Your task to perform on an android device: empty trash in the gmail app Image 0: 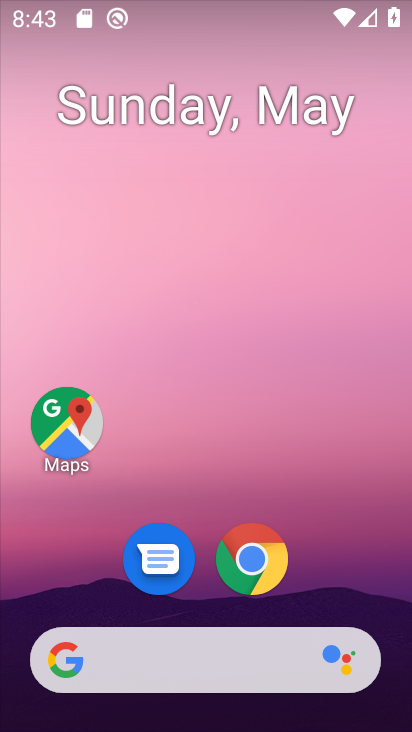
Step 0: drag from (357, 564) to (406, 325)
Your task to perform on an android device: empty trash in the gmail app Image 1: 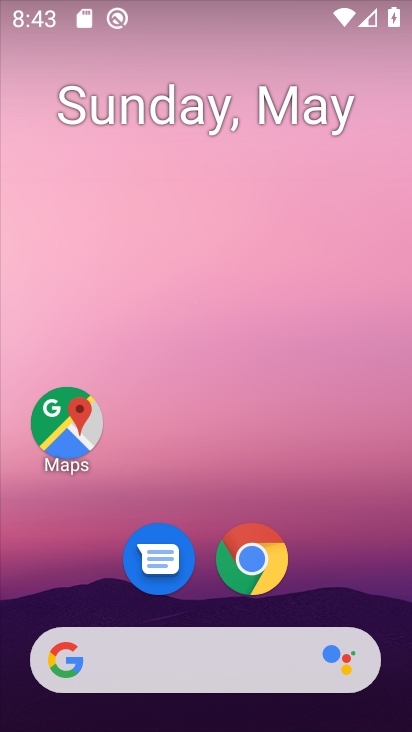
Step 1: drag from (338, 636) to (316, 7)
Your task to perform on an android device: empty trash in the gmail app Image 2: 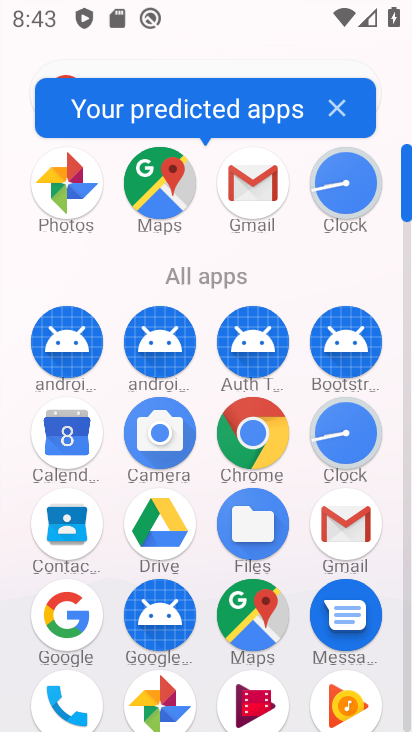
Step 2: click (342, 515)
Your task to perform on an android device: empty trash in the gmail app Image 3: 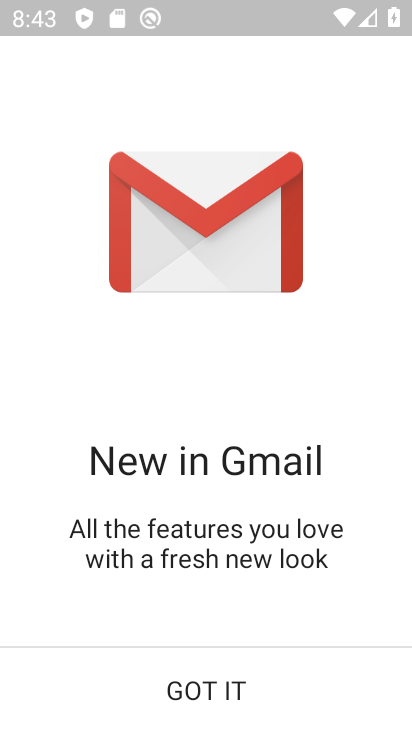
Step 3: click (219, 681)
Your task to perform on an android device: empty trash in the gmail app Image 4: 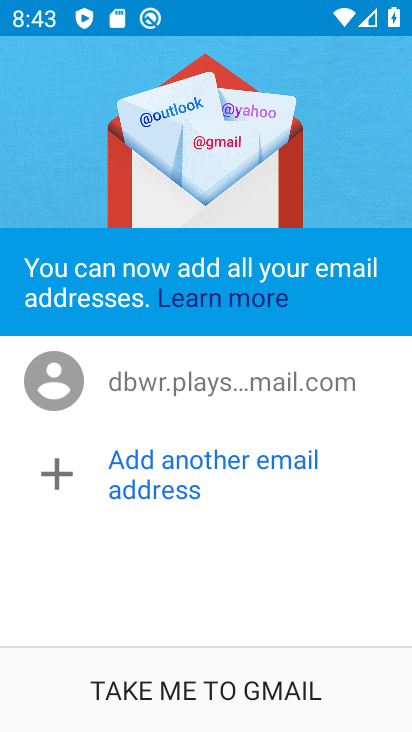
Step 4: click (220, 708)
Your task to perform on an android device: empty trash in the gmail app Image 5: 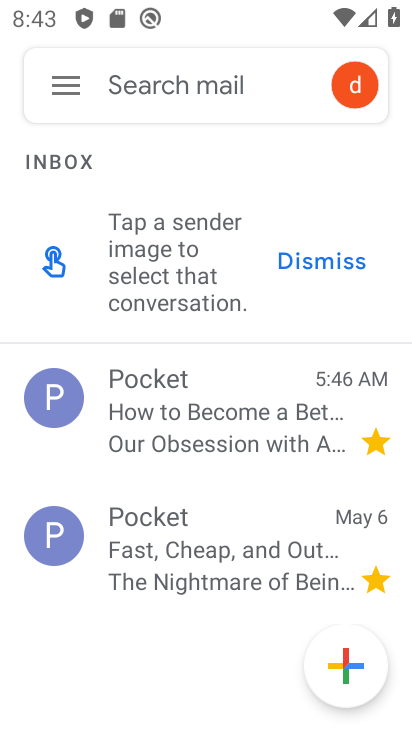
Step 5: click (62, 90)
Your task to perform on an android device: empty trash in the gmail app Image 6: 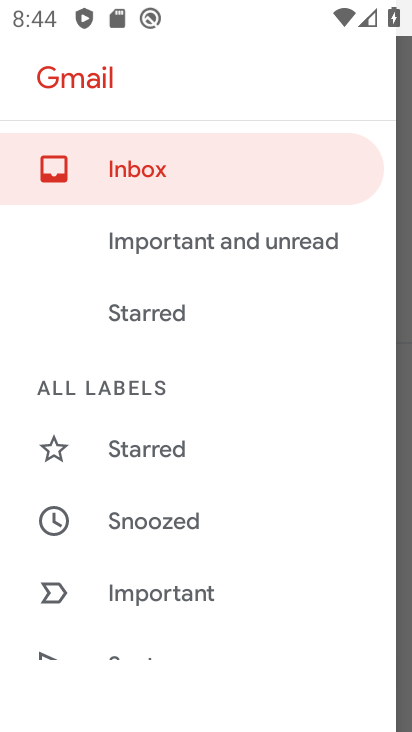
Step 6: drag from (227, 547) to (193, 190)
Your task to perform on an android device: empty trash in the gmail app Image 7: 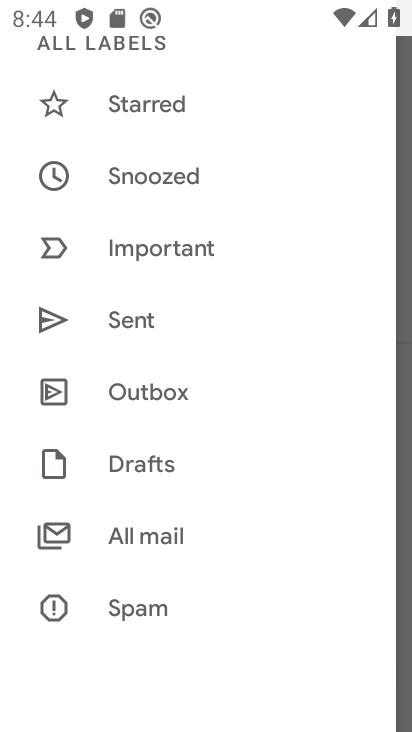
Step 7: drag from (147, 544) to (149, 171)
Your task to perform on an android device: empty trash in the gmail app Image 8: 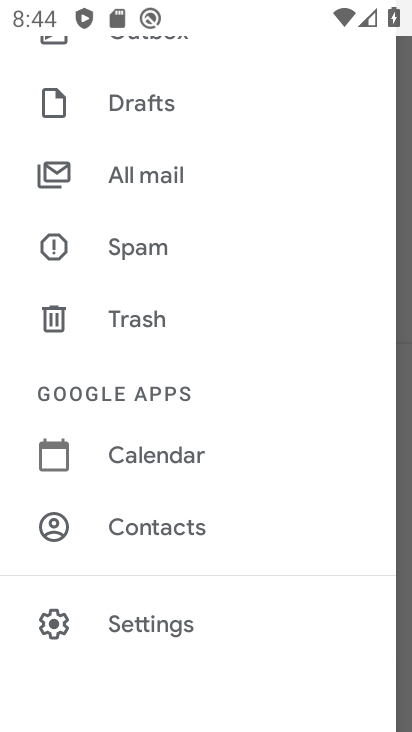
Step 8: click (155, 329)
Your task to perform on an android device: empty trash in the gmail app Image 9: 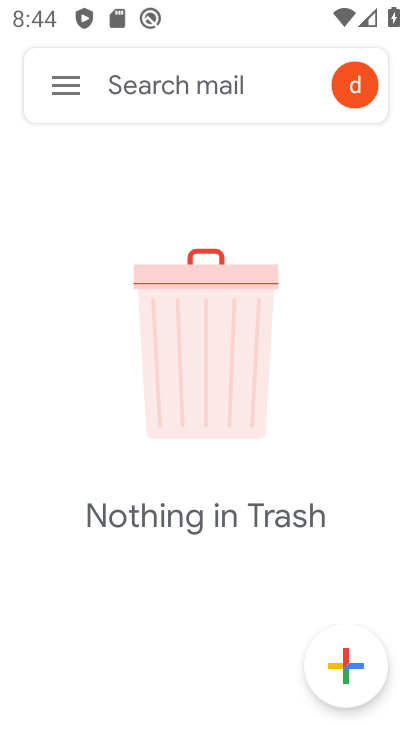
Step 9: task complete